Your task to perform on an android device: open a bookmark in the chrome app Image 0: 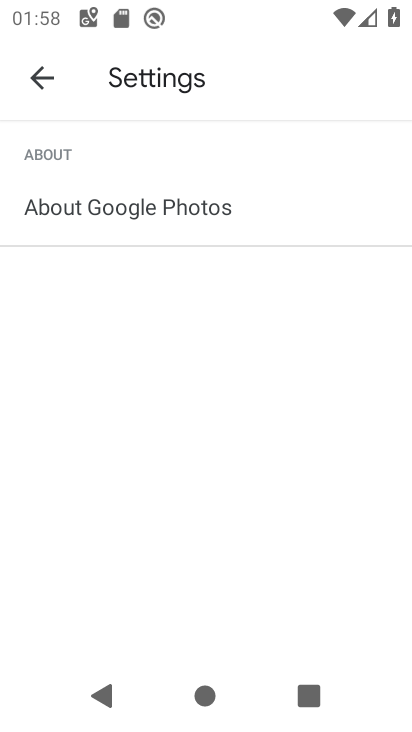
Step 0: drag from (203, 475) to (277, 286)
Your task to perform on an android device: open a bookmark in the chrome app Image 1: 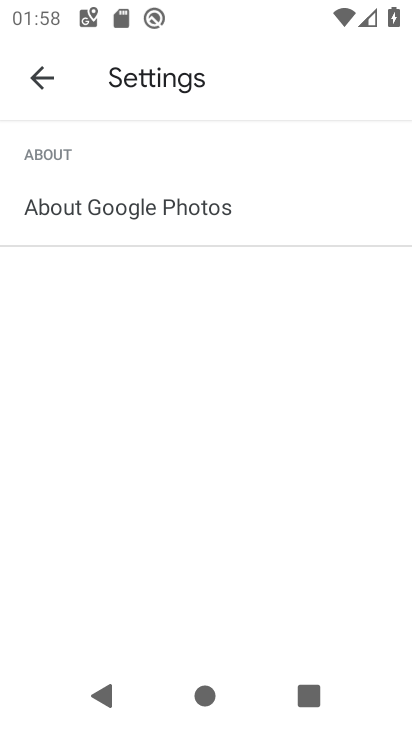
Step 1: press home button
Your task to perform on an android device: open a bookmark in the chrome app Image 2: 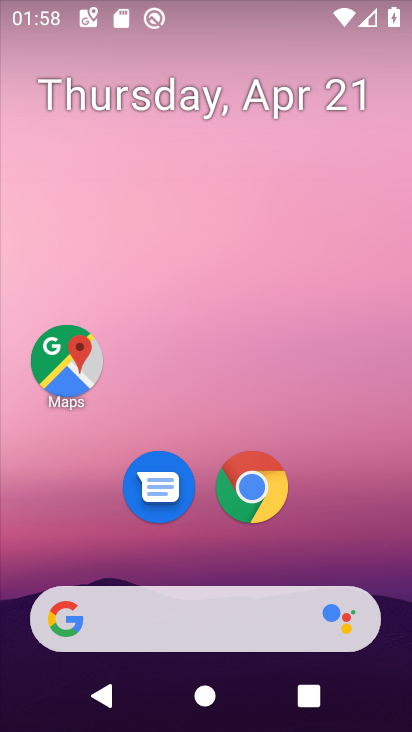
Step 2: drag from (205, 538) to (290, 202)
Your task to perform on an android device: open a bookmark in the chrome app Image 3: 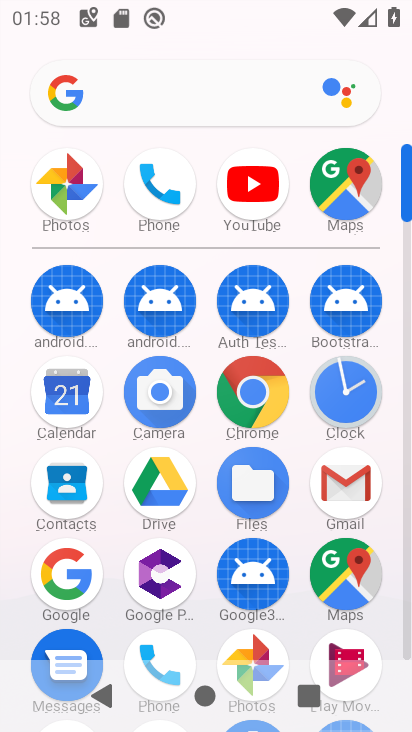
Step 3: click (253, 388)
Your task to perform on an android device: open a bookmark in the chrome app Image 4: 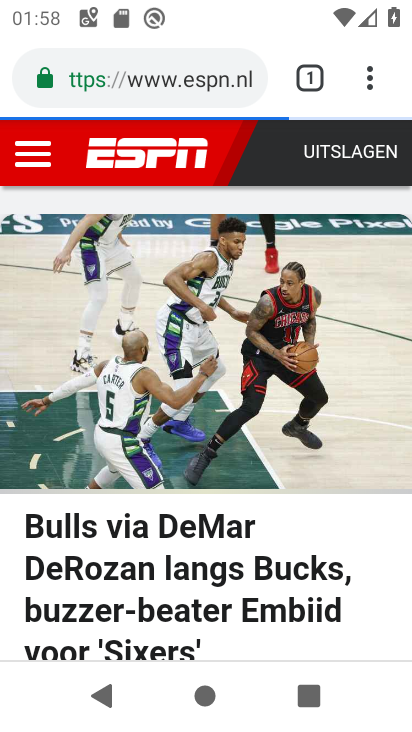
Step 4: drag from (217, 554) to (258, 343)
Your task to perform on an android device: open a bookmark in the chrome app Image 5: 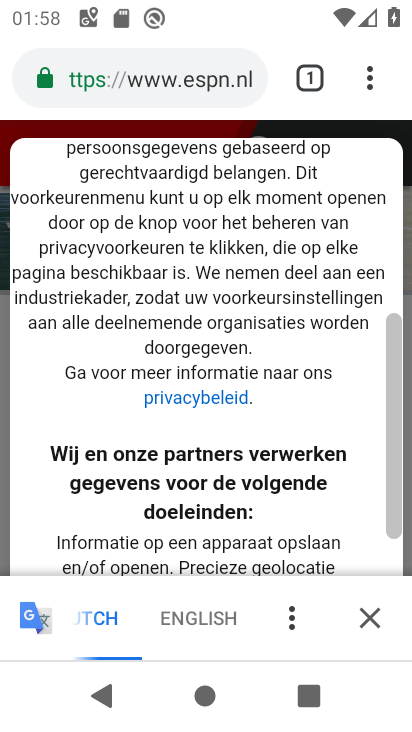
Step 5: drag from (371, 83) to (153, 382)
Your task to perform on an android device: open a bookmark in the chrome app Image 6: 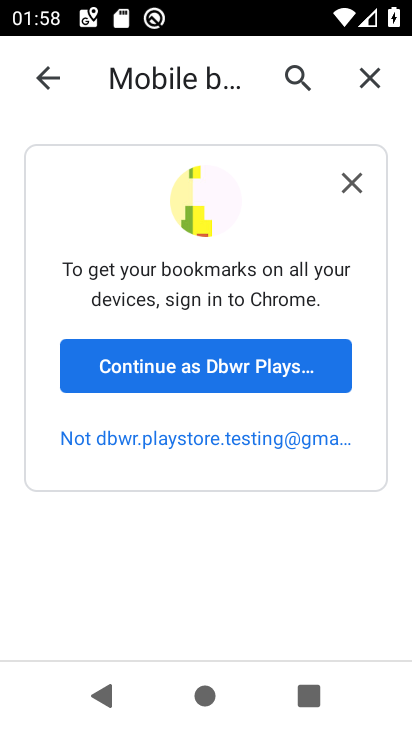
Step 6: drag from (224, 508) to (230, 343)
Your task to perform on an android device: open a bookmark in the chrome app Image 7: 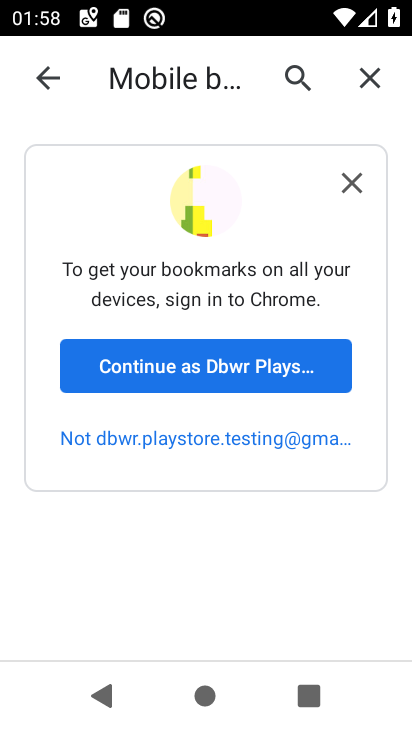
Step 7: click (348, 187)
Your task to perform on an android device: open a bookmark in the chrome app Image 8: 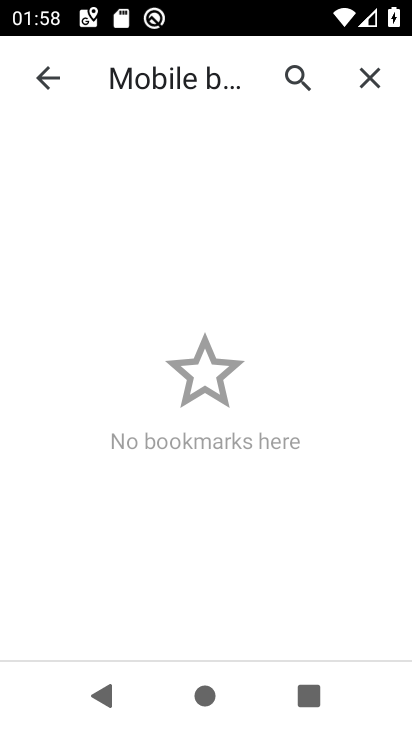
Step 8: task complete